Your task to perform on an android device: turn off airplane mode Image 0: 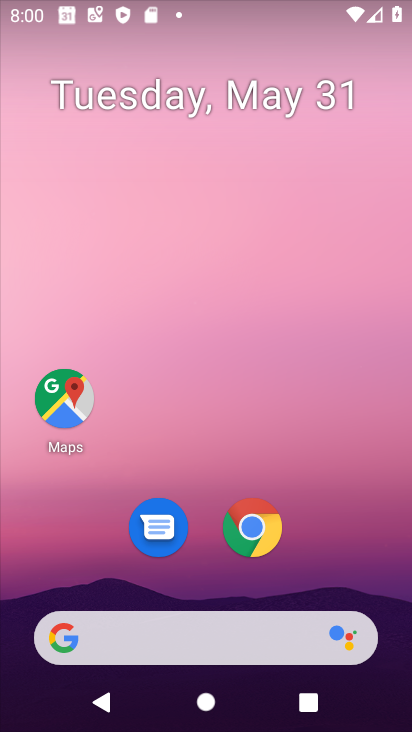
Step 0: drag from (333, 541) to (248, 166)
Your task to perform on an android device: turn off airplane mode Image 1: 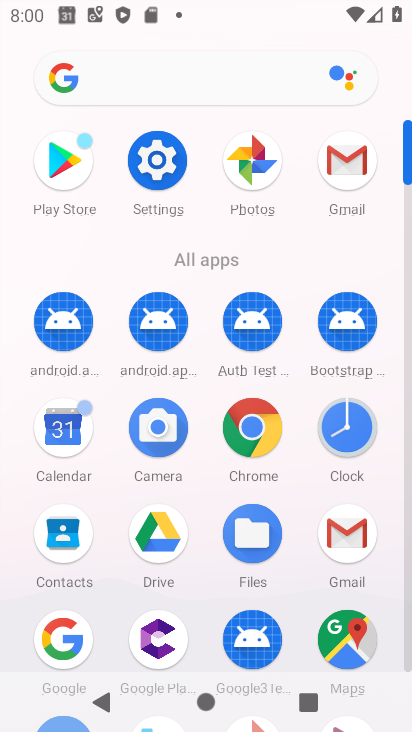
Step 1: click (157, 162)
Your task to perform on an android device: turn off airplane mode Image 2: 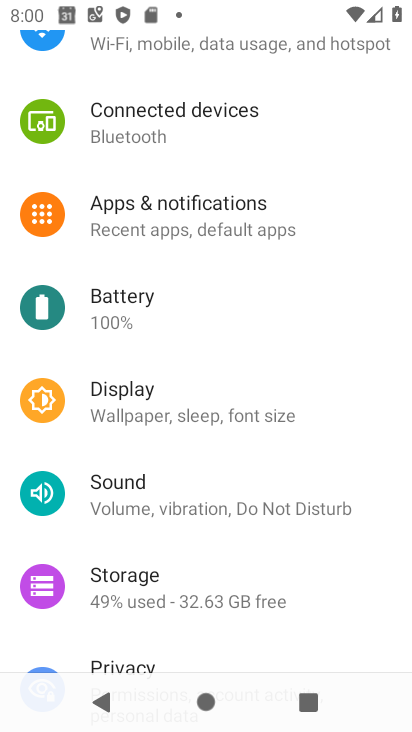
Step 2: drag from (180, 171) to (160, 541)
Your task to perform on an android device: turn off airplane mode Image 3: 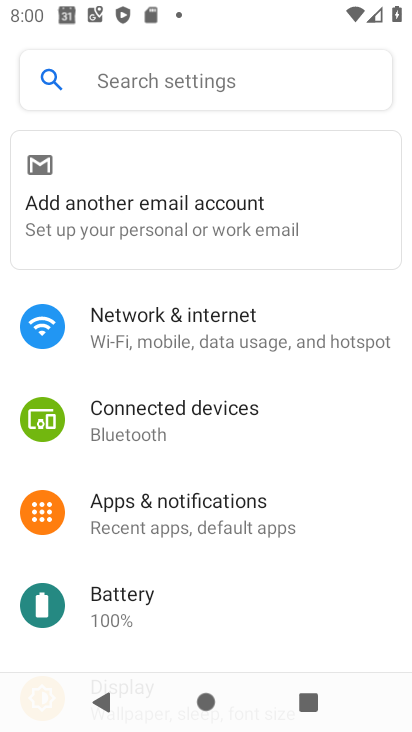
Step 3: click (147, 330)
Your task to perform on an android device: turn off airplane mode Image 4: 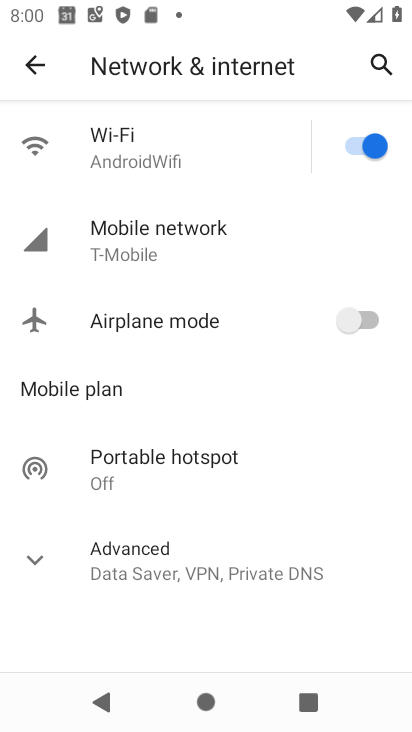
Step 4: task complete